Your task to perform on an android device: Clear the cart on costco. Image 0: 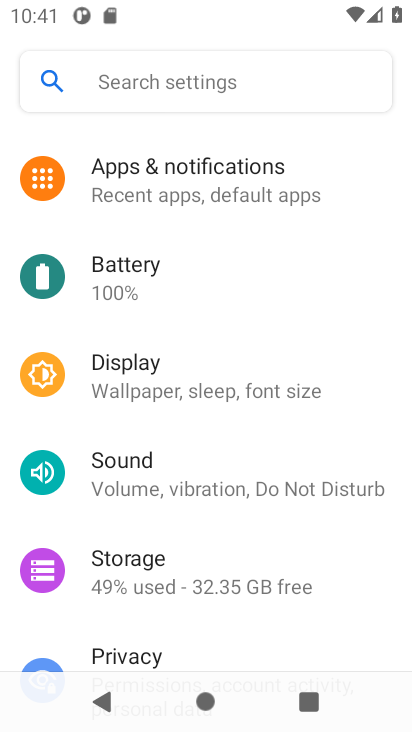
Step 0: press home button
Your task to perform on an android device: Clear the cart on costco. Image 1: 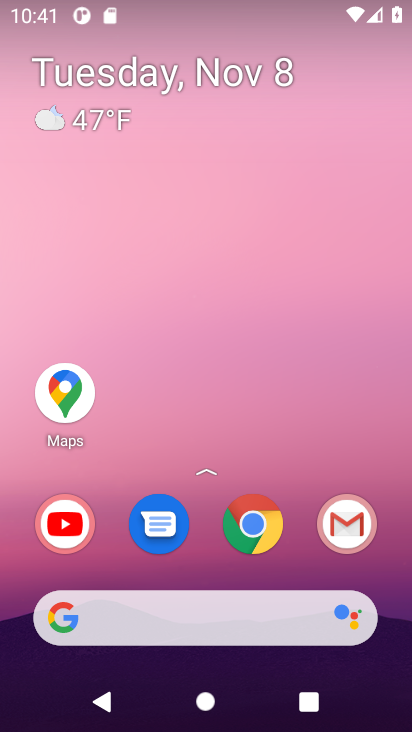
Step 1: click (252, 515)
Your task to perform on an android device: Clear the cart on costco. Image 2: 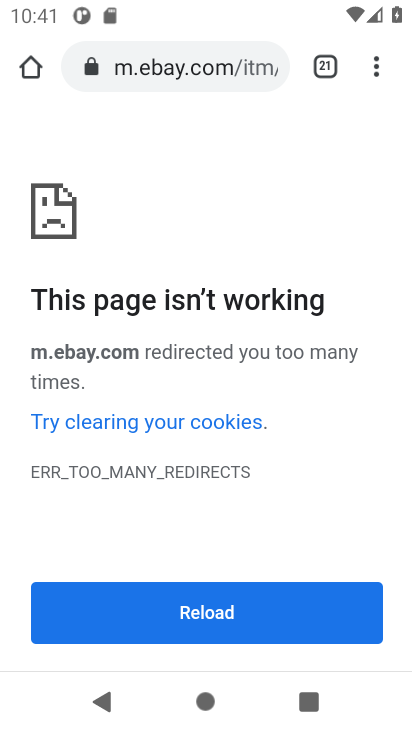
Step 2: click (176, 67)
Your task to perform on an android device: Clear the cart on costco. Image 3: 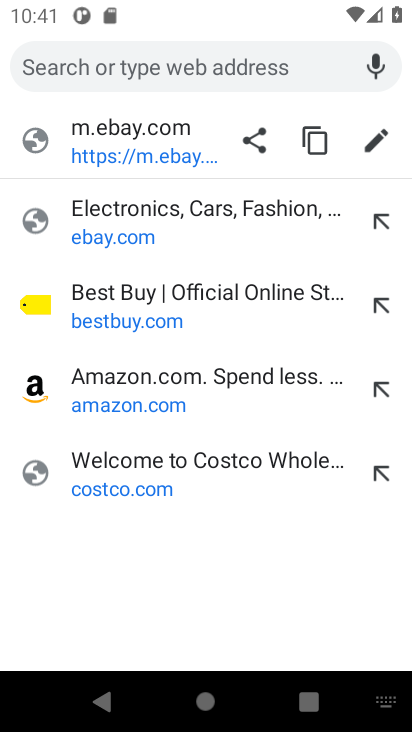
Step 3: click (120, 461)
Your task to perform on an android device: Clear the cart on costco. Image 4: 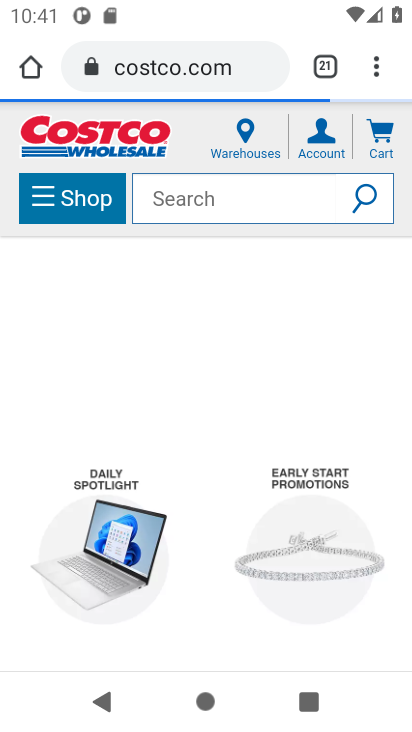
Step 4: click (382, 139)
Your task to perform on an android device: Clear the cart on costco. Image 5: 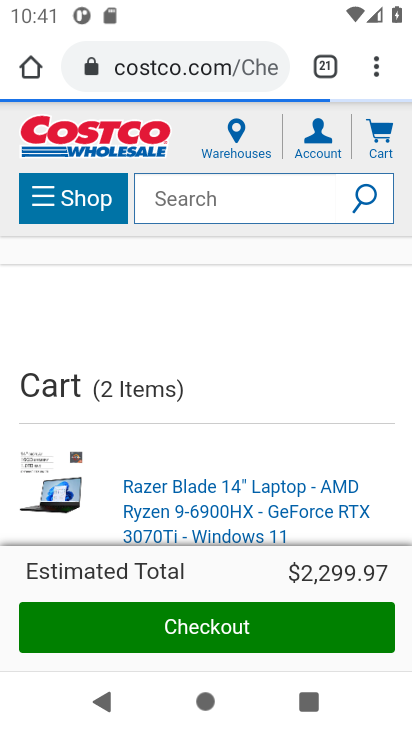
Step 5: drag from (265, 388) to (277, 136)
Your task to perform on an android device: Clear the cart on costco. Image 6: 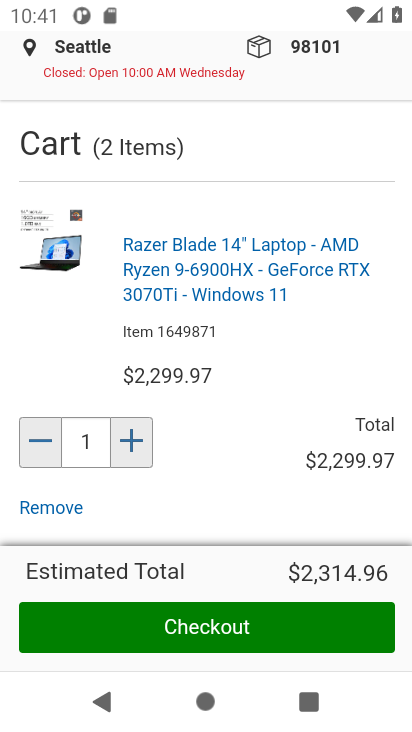
Step 6: drag from (184, 470) to (184, 258)
Your task to perform on an android device: Clear the cart on costco. Image 7: 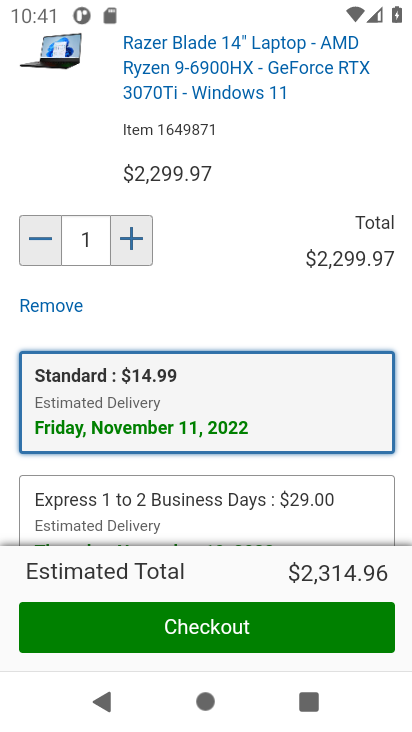
Step 7: drag from (183, 458) to (199, 206)
Your task to perform on an android device: Clear the cart on costco. Image 8: 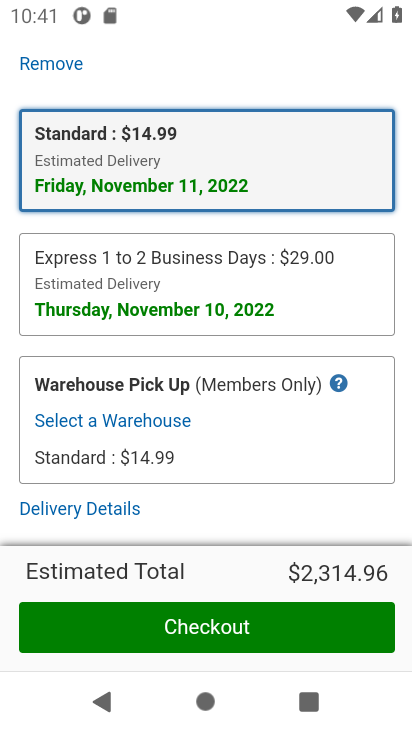
Step 8: drag from (203, 433) to (208, 212)
Your task to perform on an android device: Clear the cart on costco. Image 9: 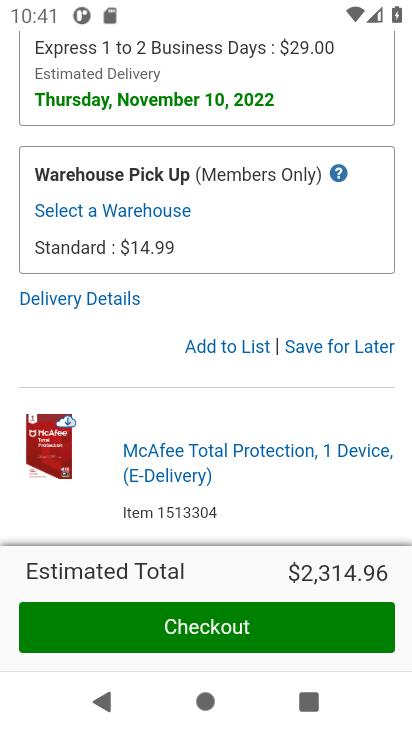
Step 9: click (319, 352)
Your task to perform on an android device: Clear the cart on costco. Image 10: 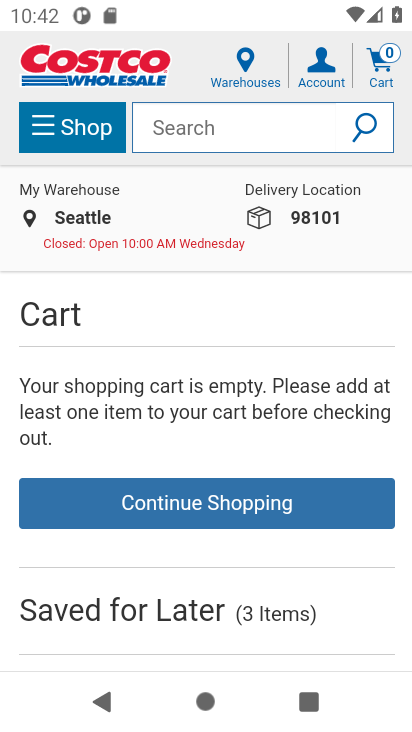
Step 10: task complete